Your task to perform on an android device: Play the last video I watched on Youtube Image 0: 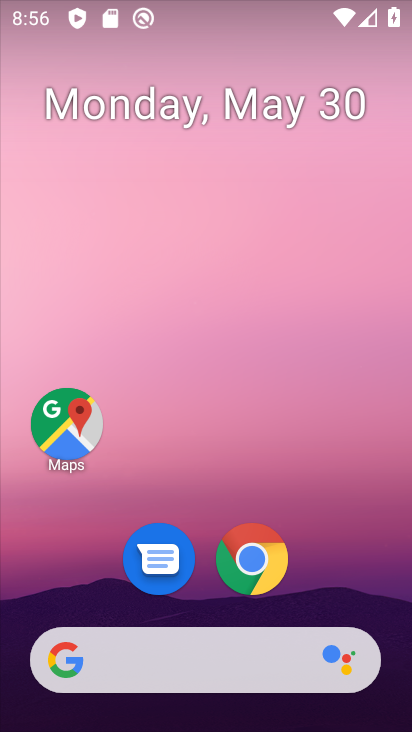
Step 0: drag from (335, 591) to (305, 107)
Your task to perform on an android device: Play the last video I watched on Youtube Image 1: 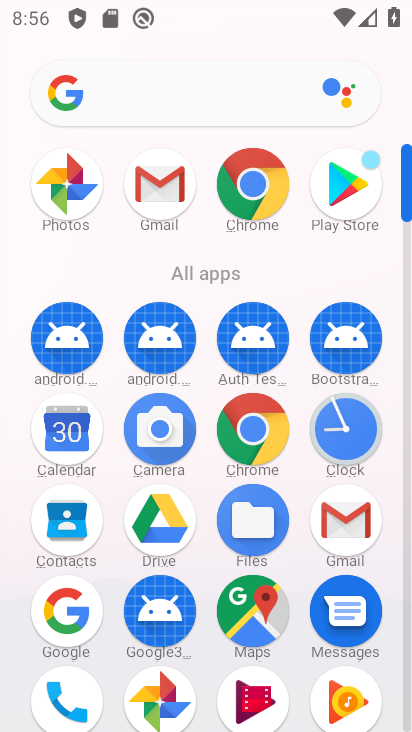
Step 1: drag from (294, 631) to (313, 295)
Your task to perform on an android device: Play the last video I watched on Youtube Image 2: 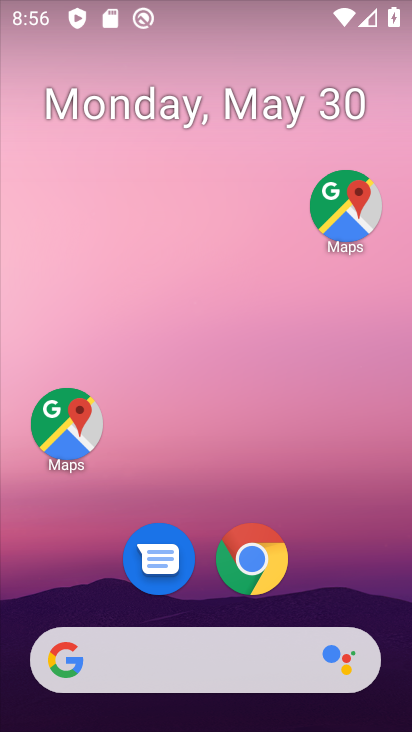
Step 2: drag from (320, 405) to (339, 133)
Your task to perform on an android device: Play the last video I watched on Youtube Image 3: 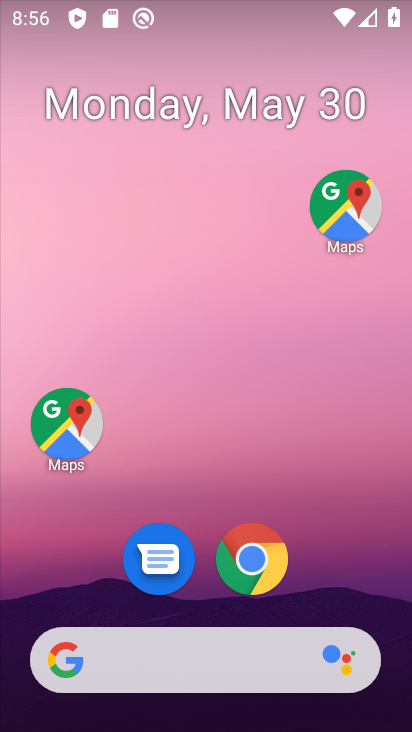
Step 3: drag from (351, 535) to (335, 53)
Your task to perform on an android device: Play the last video I watched on Youtube Image 4: 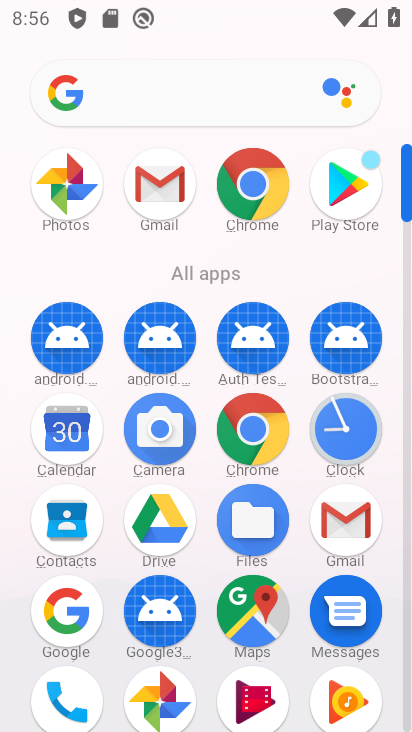
Step 4: drag from (295, 560) to (313, 261)
Your task to perform on an android device: Play the last video I watched on Youtube Image 5: 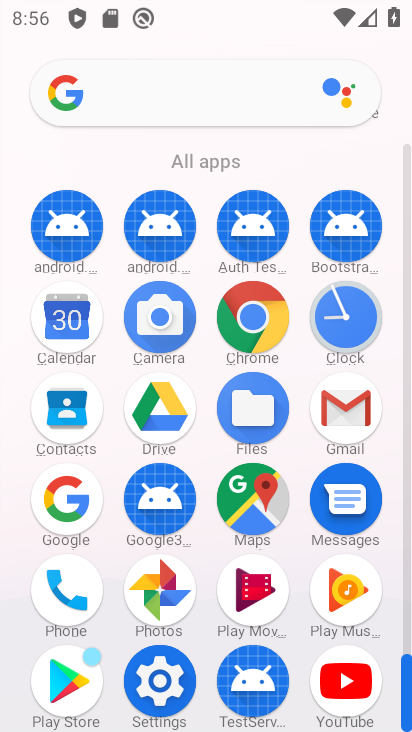
Step 5: click (332, 675)
Your task to perform on an android device: Play the last video I watched on Youtube Image 6: 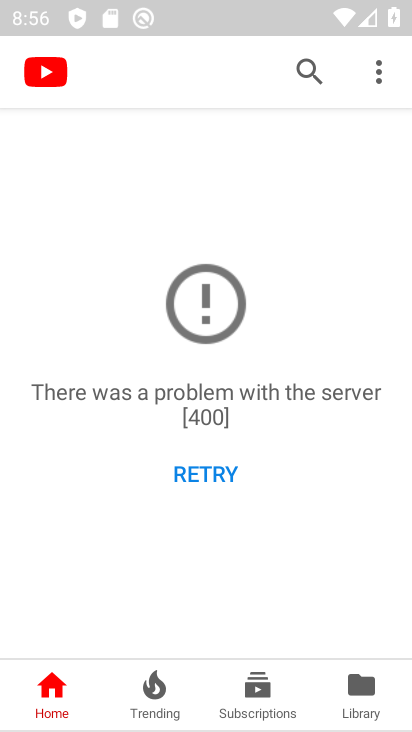
Step 6: task complete